Your task to perform on an android device: Go to accessibility settings Image 0: 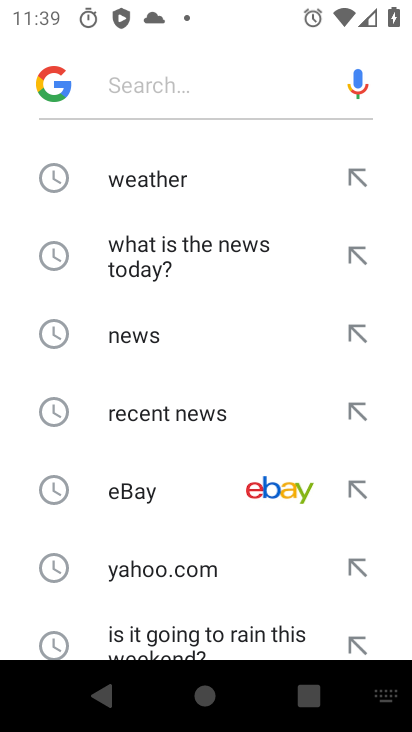
Step 0: press home button
Your task to perform on an android device: Go to accessibility settings Image 1: 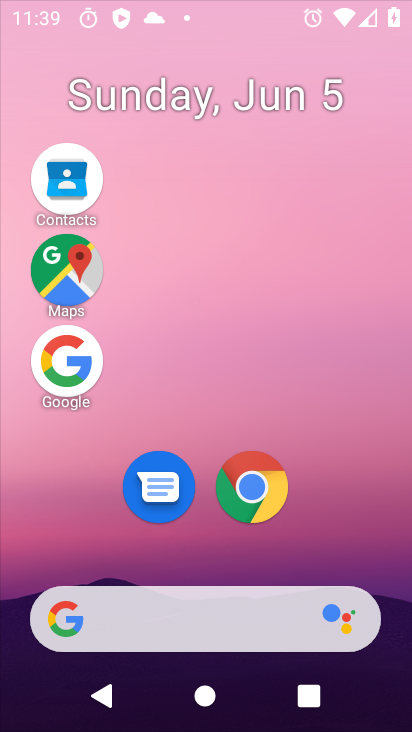
Step 1: drag from (262, 571) to (255, 101)
Your task to perform on an android device: Go to accessibility settings Image 2: 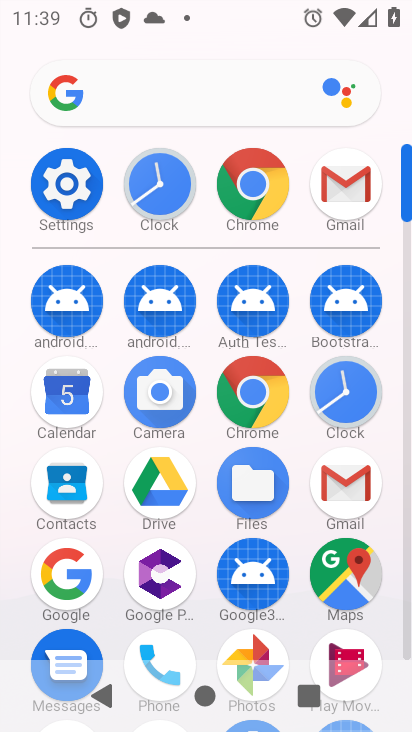
Step 2: click (68, 183)
Your task to perform on an android device: Go to accessibility settings Image 3: 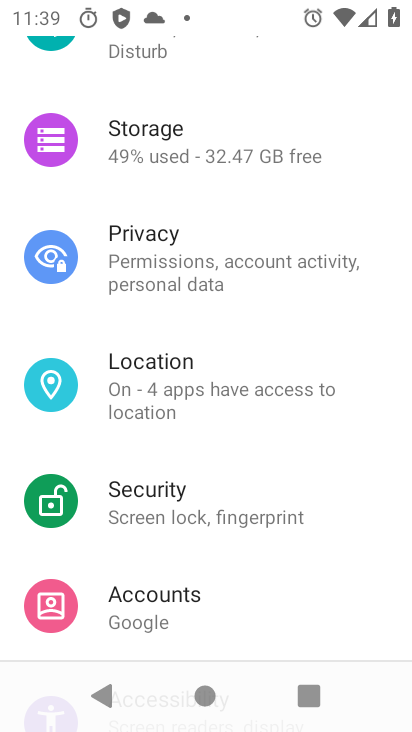
Step 3: drag from (157, 516) to (223, 263)
Your task to perform on an android device: Go to accessibility settings Image 4: 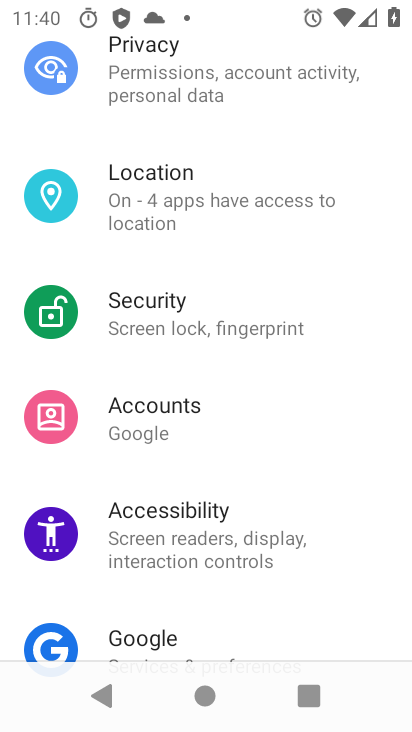
Step 4: click (152, 569)
Your task to perform on an android device: Go to accessibility settings Image 5: 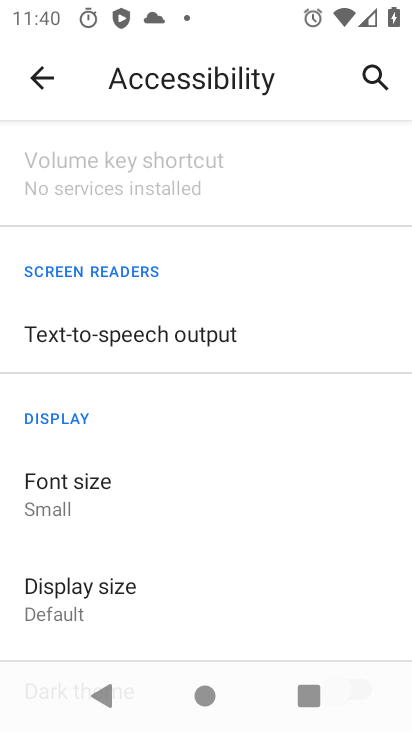
Step 5: task complete